Your task to perform on an android device: Show me the alarms in the clock app Image 0: 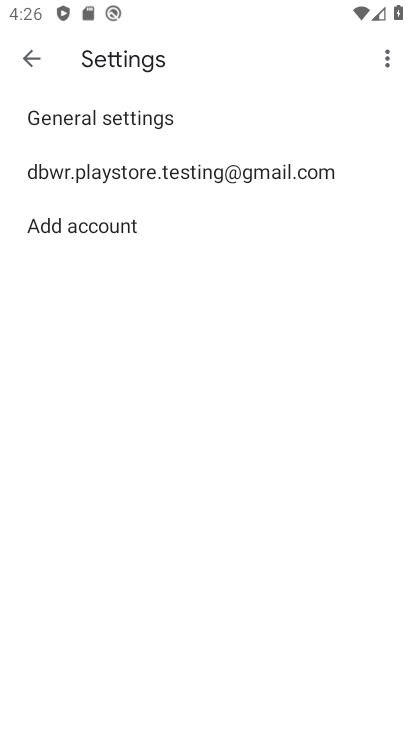
Step 0: press home button
Your task to perform on an android device: Show me the alarms in the clock app Image 1: 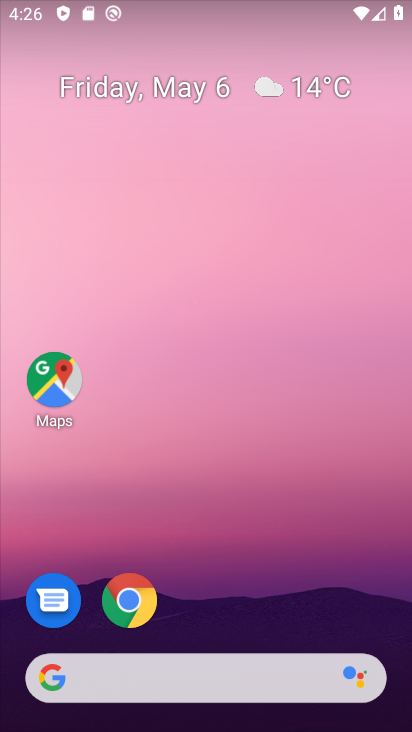
Step 1: drag from (250, 349) to (295, 46)
Your task to perform on an android device: Show me the alarms in the clock app Image 2: 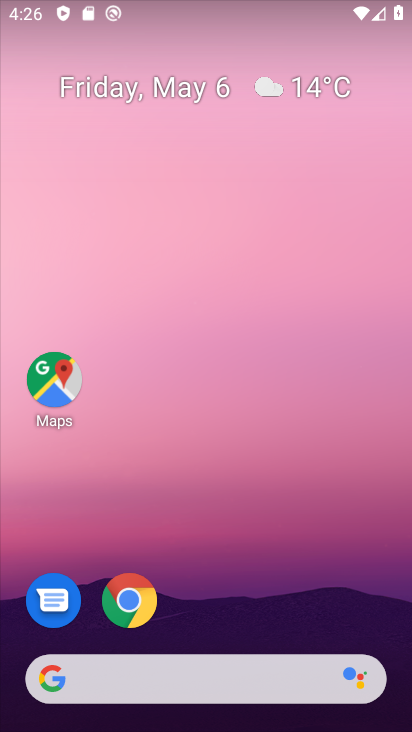
Step 2: drag from (251, 489) to (284, 134)
Your task to perform on an android device: Show me the alarms in the clock app Image 3: 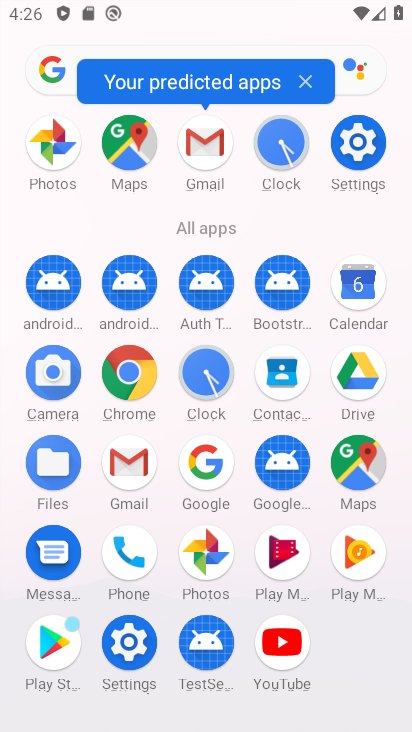
Step 3: click (211, 394)
Your task to perform on an android device: Show me the alarms in the clock app Image 4: 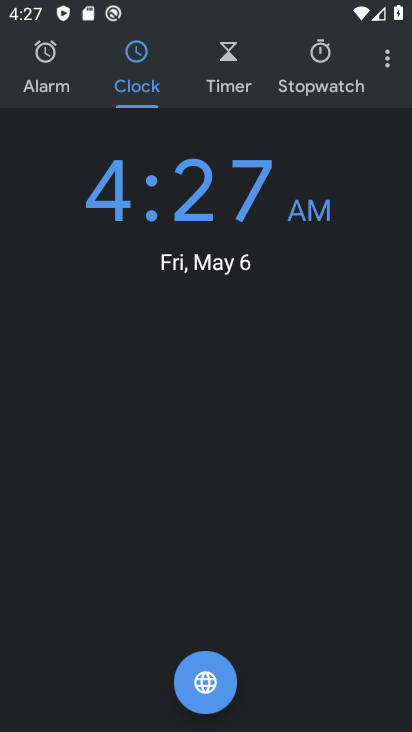
Step 4: click (63, 86)
Your task to perform on an android device: Show me the alarms in the clock app Image 5: 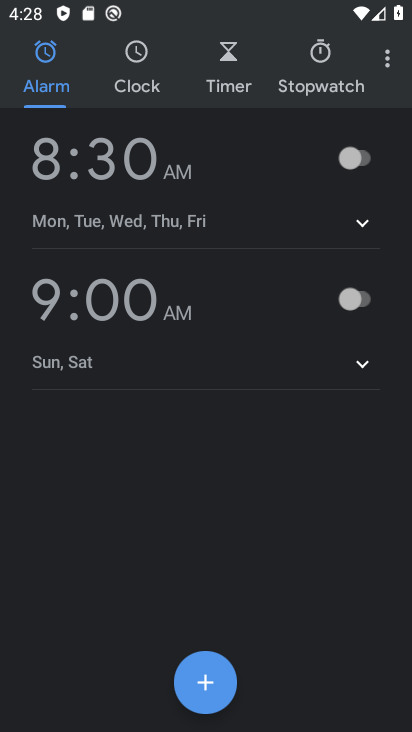
Step 5: task complete